Your task to perform on an android device: turn on data saver in the chrome app Image 0: 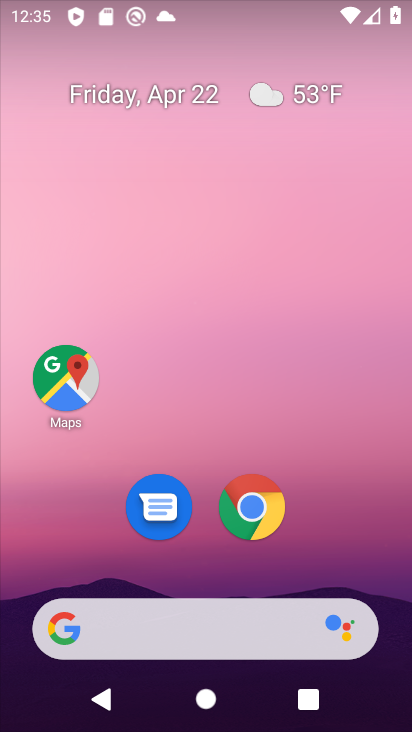
Step 0: click (269, 511)
Your task to perform on an android device: turn on data saver in the chrome app Image 1: 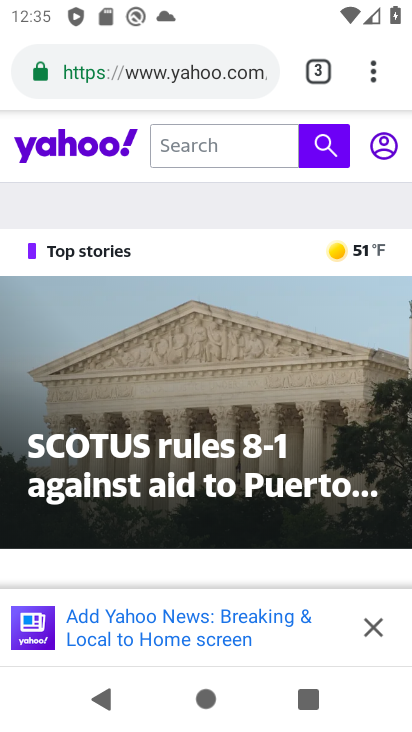
Step 1: click (372, 72)
Your task to perform on an android device: turn on data saver in the chrome app Image 2: 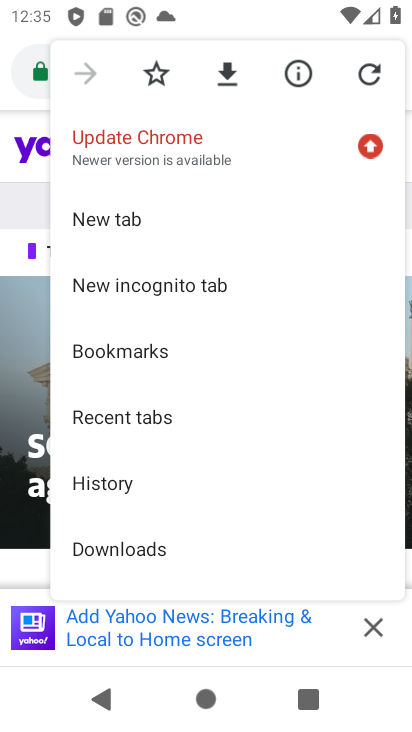
Step 2: drag from (163, 478) to (155, 98)
Your task to perform on an android device: turn on data saver in the chrome app Image 3: 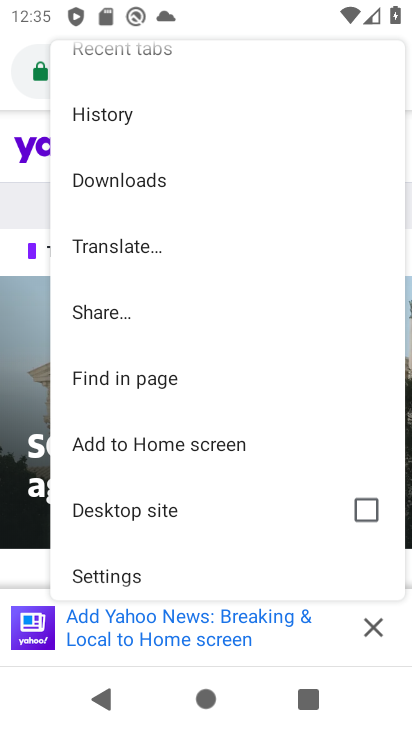
Step 3: click (109, 574)
Your task to perform on an android device: turn on data saver in the chrome app Image 4: 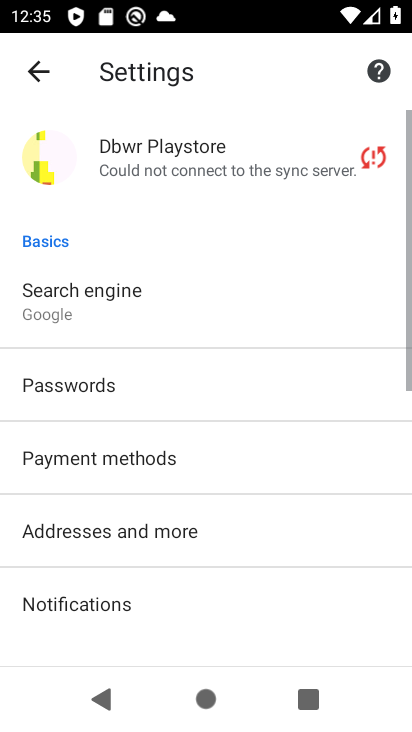
Step 4: drag from (112, 584) to (101, 163)
Your task to perform on an android device: turn on data saver in the chrome app Image 5: 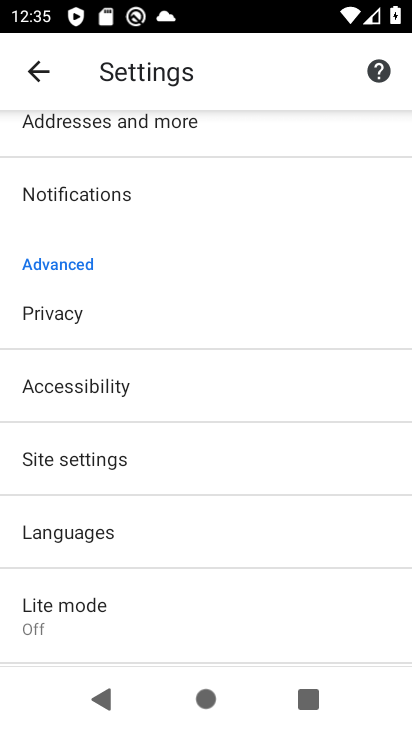
Step 5: drag from (174, 576) to (164, 321)
Your task to perform on an android device: turn on data saver in the chrome app Image 6: 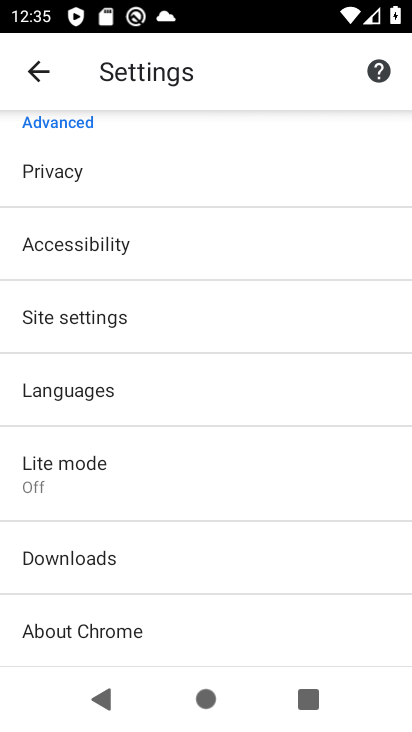
Step 6: click (50, 473)
Your task to perform on an android device: turn on data saver in the chrome app Image 7: 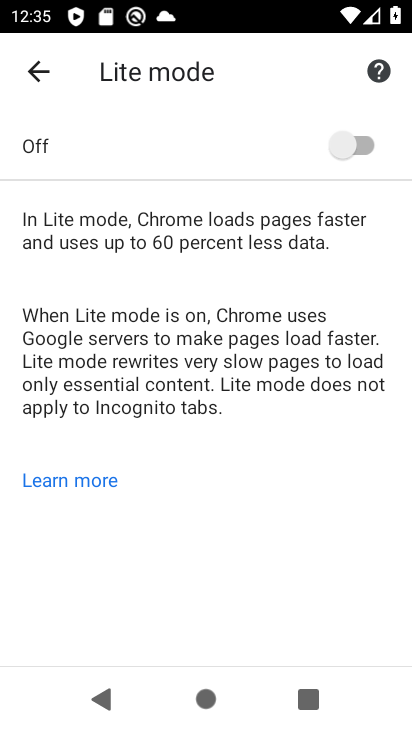
Step 7: click (356, 153)
Your task to perform on an android device: turn on data saver in the chrome app Image 8: 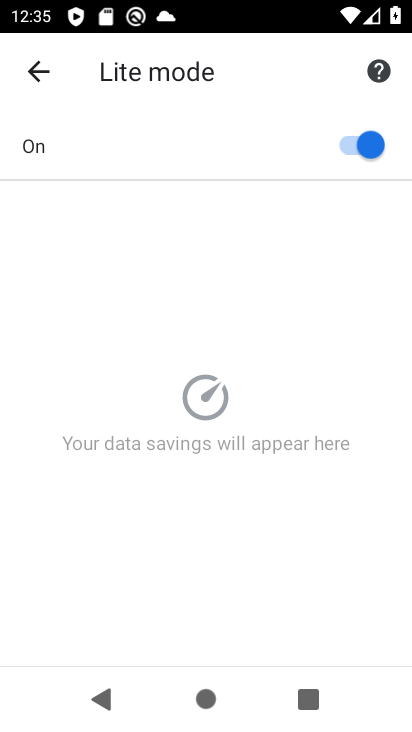
Step 8: task complete